Your task to perform on an android device: Go to notification settings Image 0: 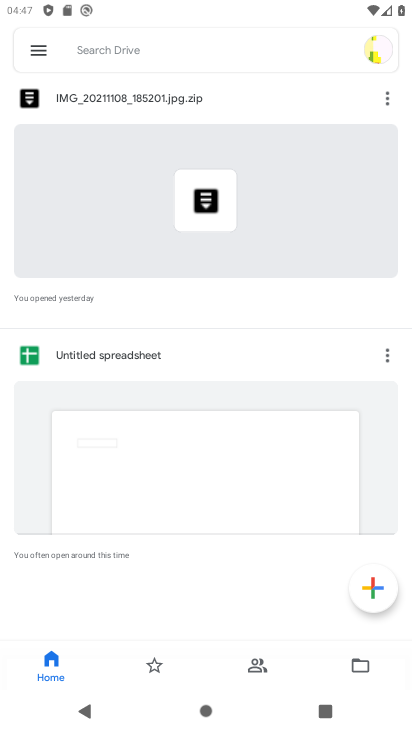
Step 0: press home button
Your task to perform on an android device: Go to notification settings Image 1: 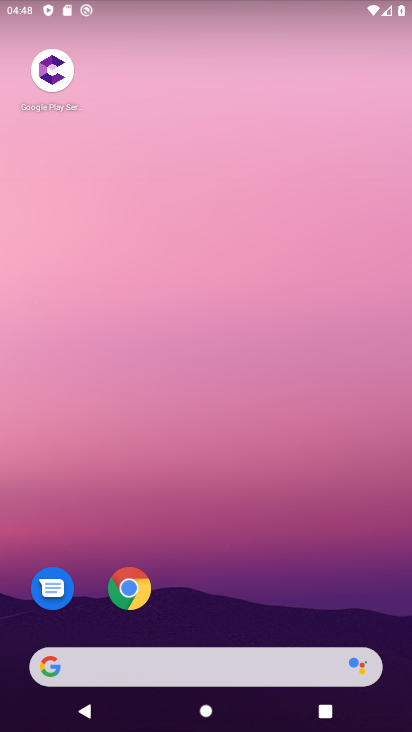
Step 1: drag from (248, 588) to (281, 0)
Your task to perform on an android device: Go to notification settings Image 2: 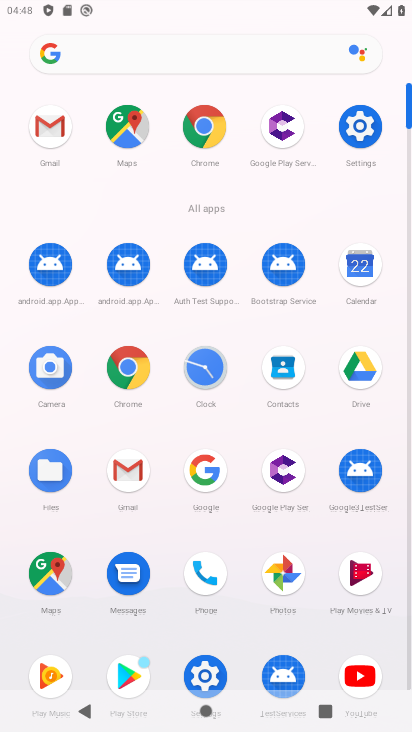
Step 2: click (361, 155)
Your task to perform on an android device: Go to notification settings Image 3: 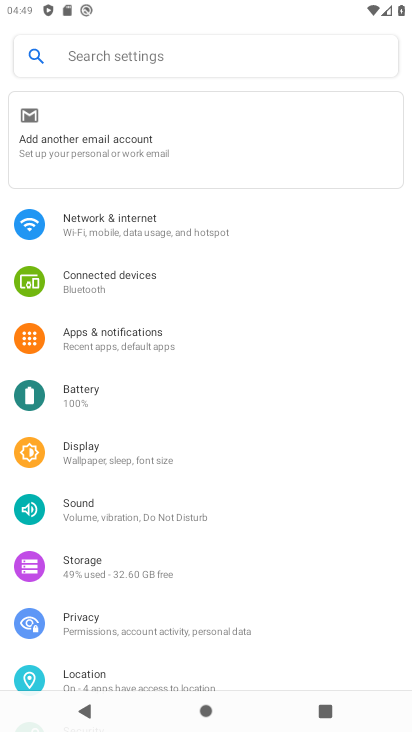
Step 3: click (157, 341)
Your task to perform on an android device: Go to notification settings Image 4: 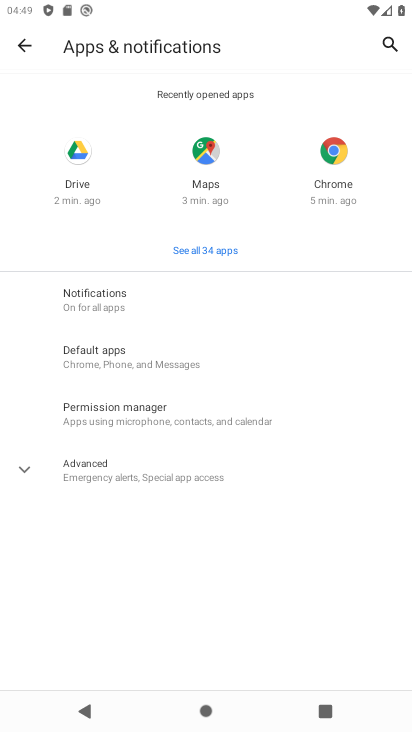
Step 4: task complete